Your task to perform on an android device: Go to Google Image 0: 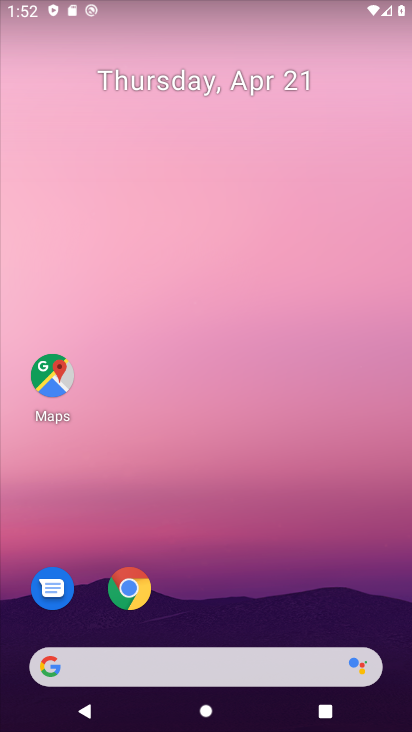
Step 0: drag from (281, 624) to (290, 60)
Your task to perform on an android device: Go to Google Image 1: 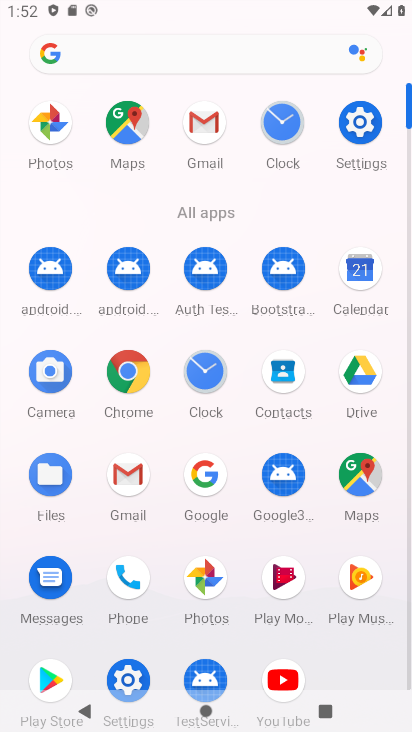
Step 1: click (204, 470)
Your task to perform on an android device: Go to Google Image 2: 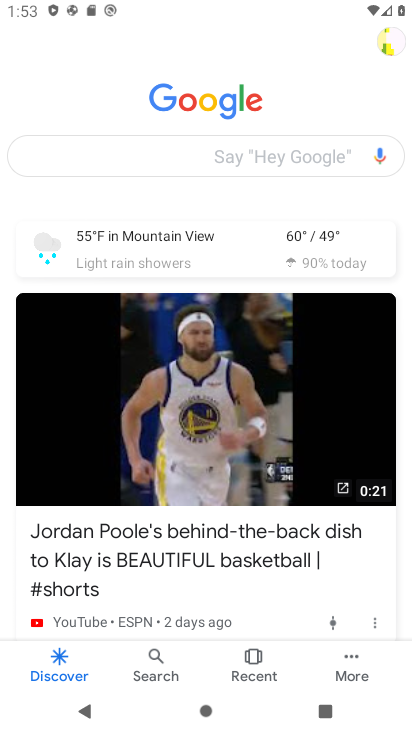
Step 2: task complete